Your task to perform on an android device: Go to location settings Image 0: 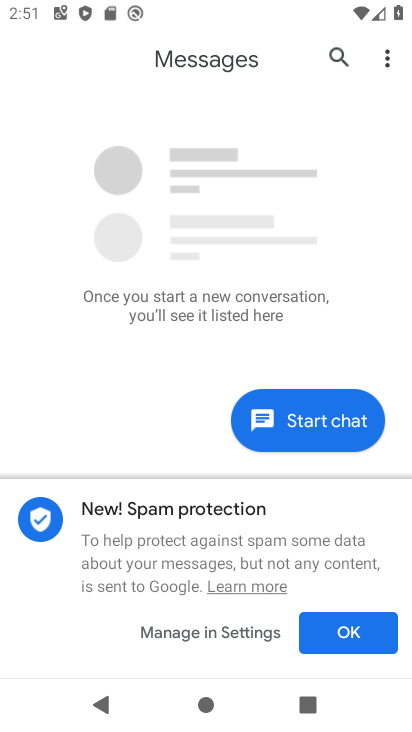
Step 0: press back button
Your task to perform on an android device: Go to location settings Image 1: 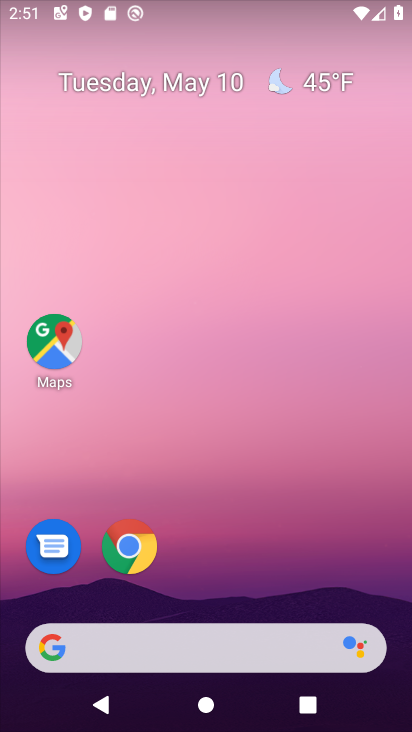
Step 1: drag from (221, 525) to (199, 16)
Your task to perform on an android device: Go to location settings Image 2: 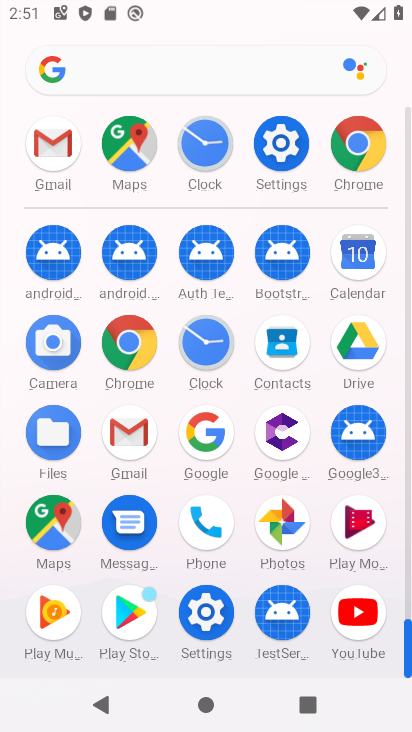
Step 2: drag from (6, 452) to (9, 132)
Your task to perform on an android device: Go to location settings Image 3: 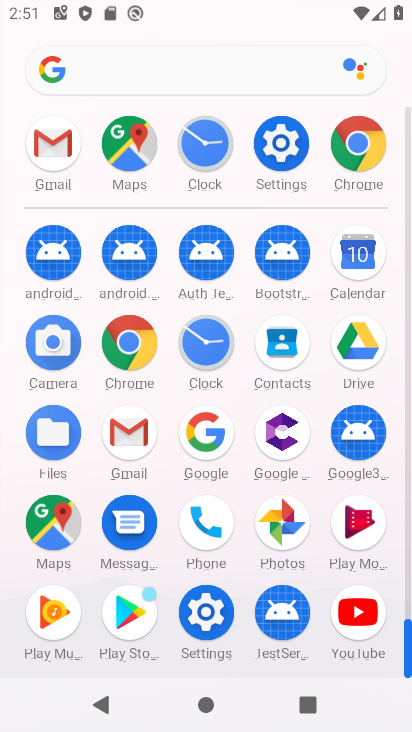
Step 3: click (207, 615)
Your task to perform on an android device: Go to location settings Image 4: 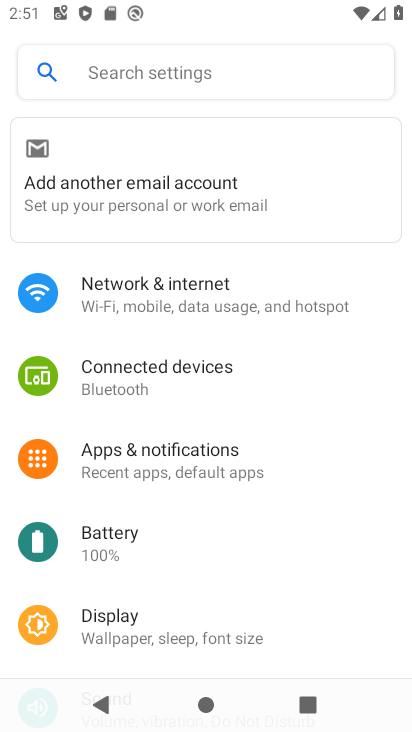
Step 4: drag from (255, 606) to (260, 237)
Your task to perform on an android device: Go to location settings Image 5: 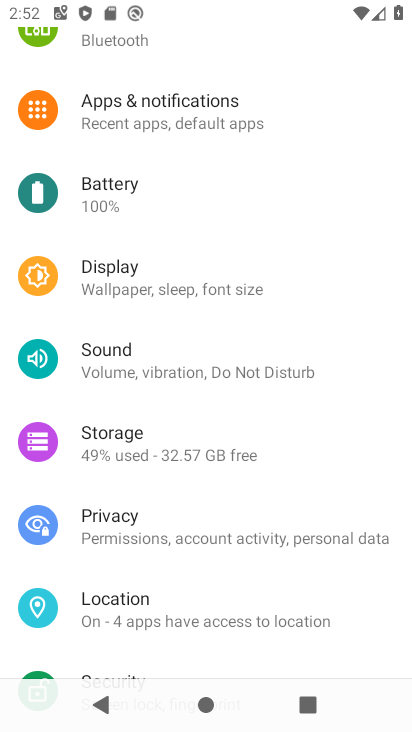
Step 5: drag from (211, 567) to (262, 217)
Your task to perform on an android device: Go to location settings Image 6: 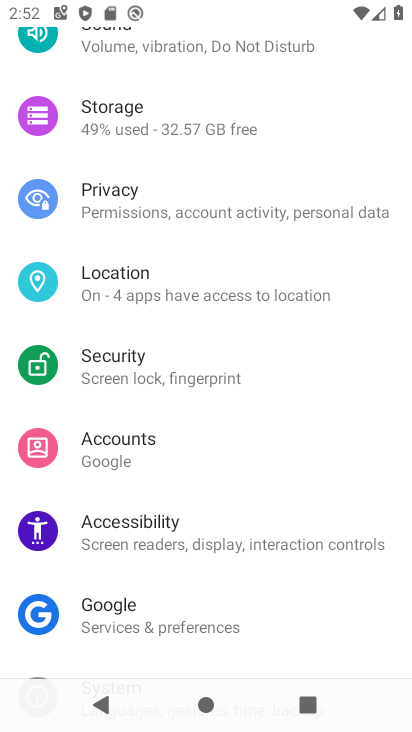
Step 6: click (170, 294)
Your task to perform on an android device: Go to location settings Image 7: 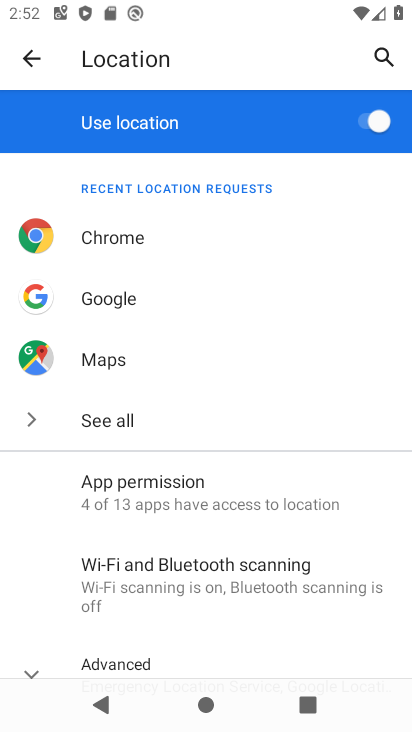
Step 7: drag from (254, 583) to (197, 171)
Your task to perform on an android device: Go to location settings Image 8: 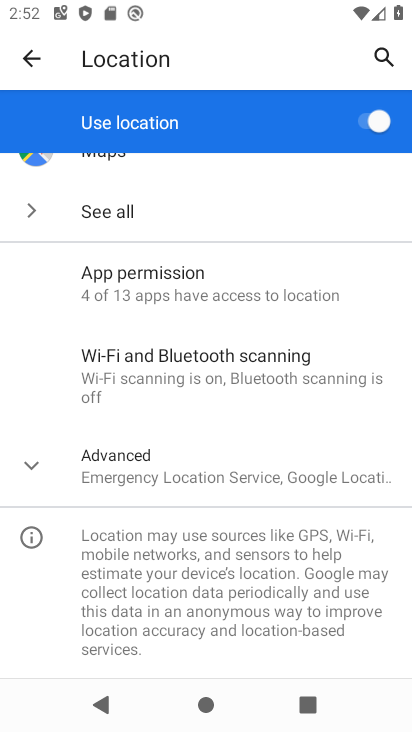
Step 8: click (51, 458)
Your task to perform on an android device: Go to location settings Image 9: 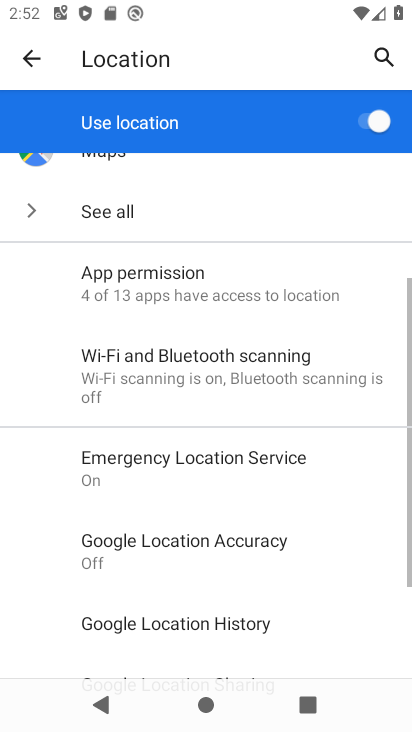
Step 9: task complete